Your task to perform on an android device: Open sound settings Image 0: 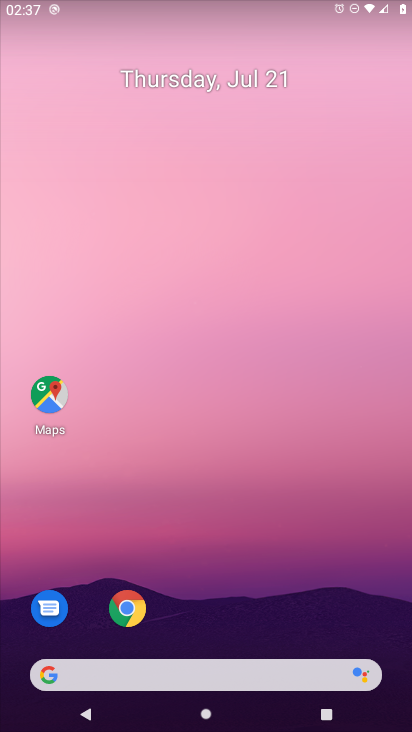
Step 0: press home button
Your task to perform on an android device: Open sound settings Image 1: 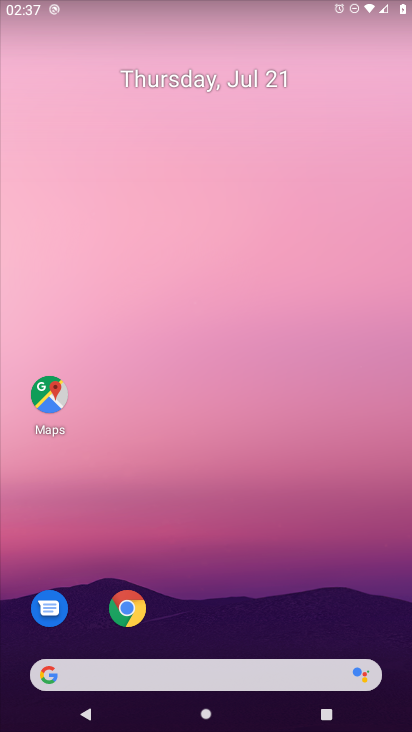
Step 1: drag from (218, 632) to (242, 54)
Your task to perform on an android device: Open sound settings Image 2: 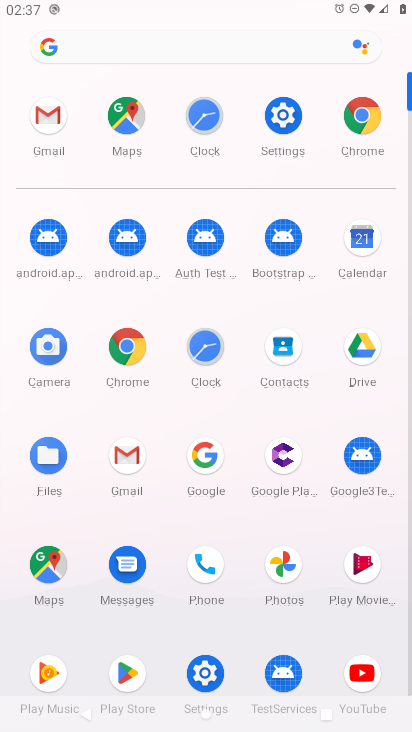
Step 2: click (292, 105)
Your task to perform on an android device: Open sound settings Image 3: 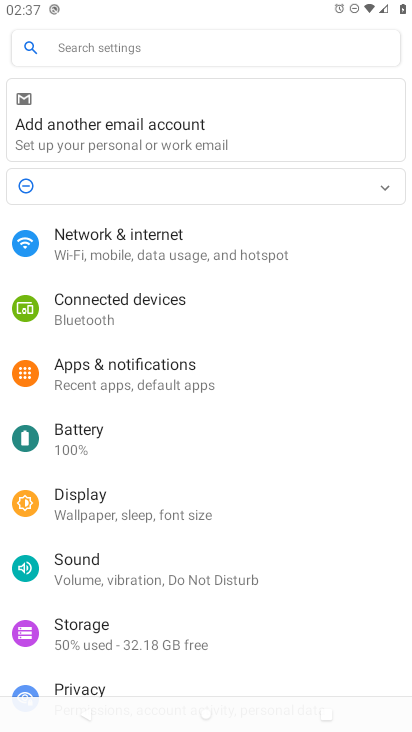
Step 3: click (74, 577)
Your task to perform on an android device: Open sound settings Image 4: 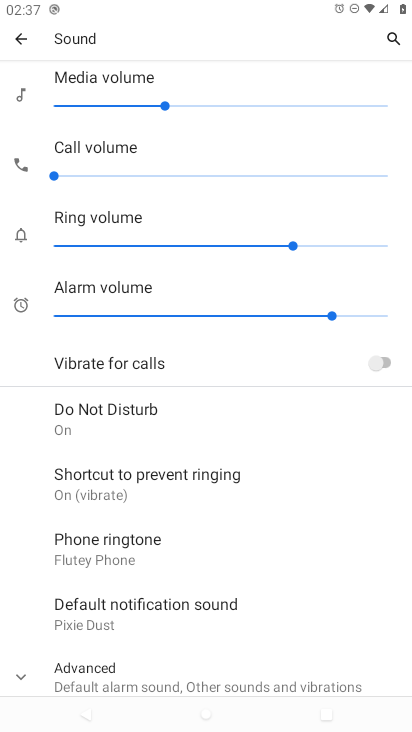
Step 4: task complete